Your task to perform on an android device: change the clock display to digital Image 0: 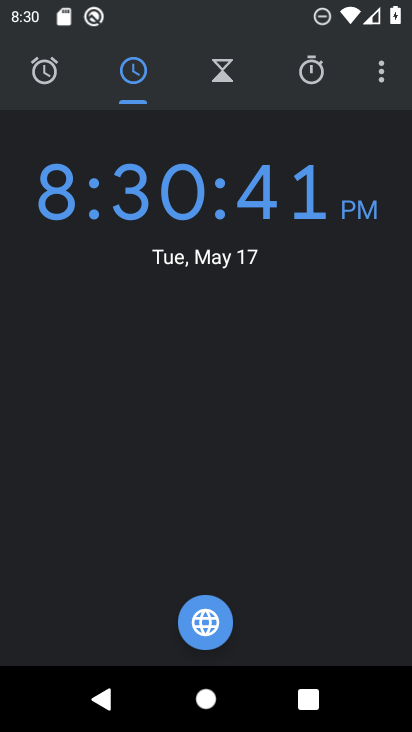
Step 0: click (382, 83)
Your task to perform on an android device: change the clock display to digital Image 1: 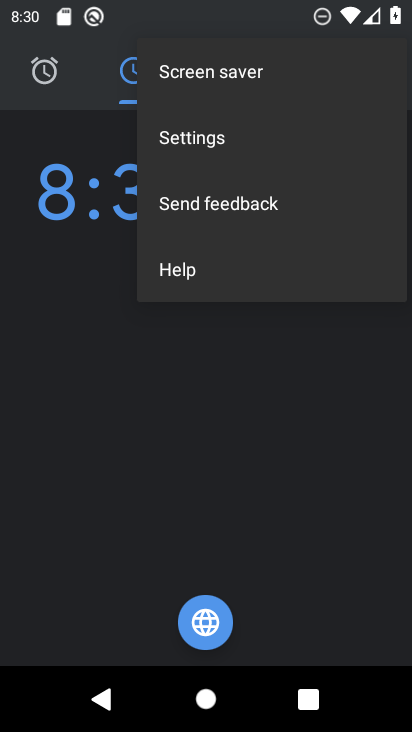
Step 1: click (220, 140)
Your task to perform on an android device: change the clock display to digital Image 2: 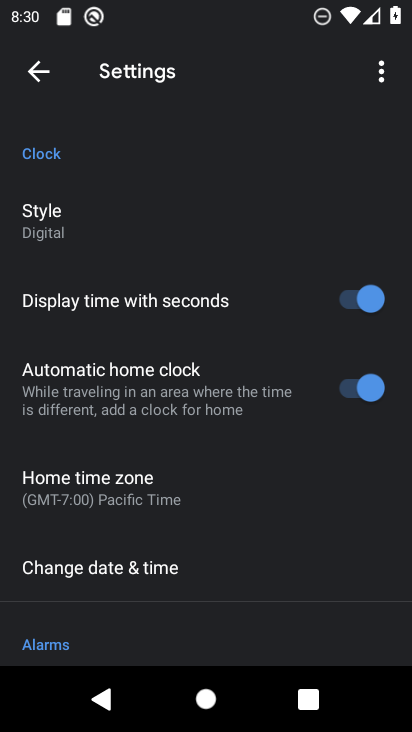
Step 2: task complete